Your task to perform on an android device: set default search engine in the chrome app Image 0: 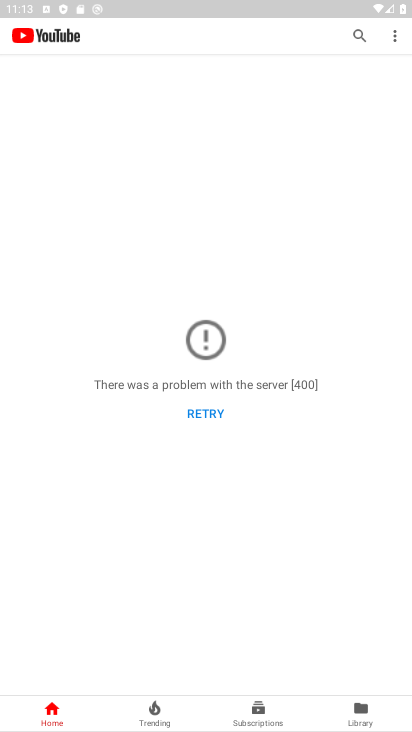
Step 0: press home button
Your task to perform on an android device: set default search engine in the chrome app Image 1: 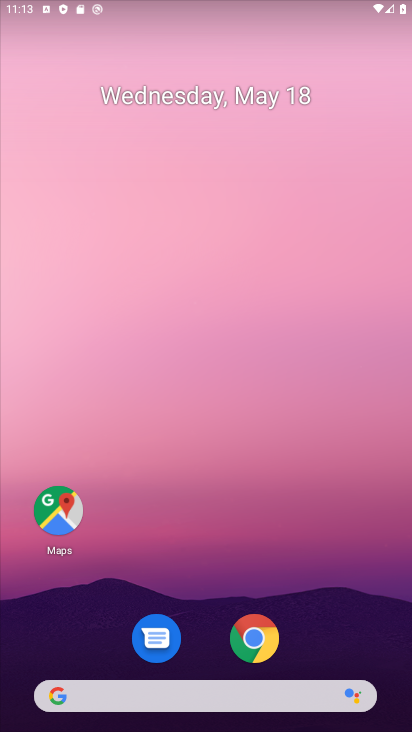
Step 1: drag from (373, 626) to (299, 104)
Your task to perform on an android device: set default search engine in the chrome app Image 2: 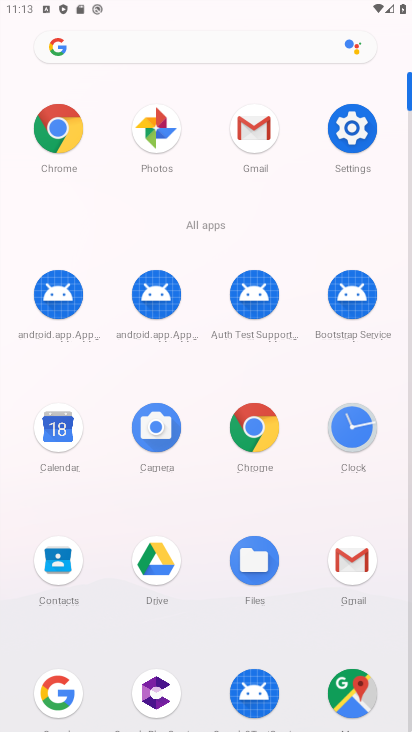
Step 2: click (71, 124)
Your task to perform on an android device: set default search engine in the chrome app Image 3: 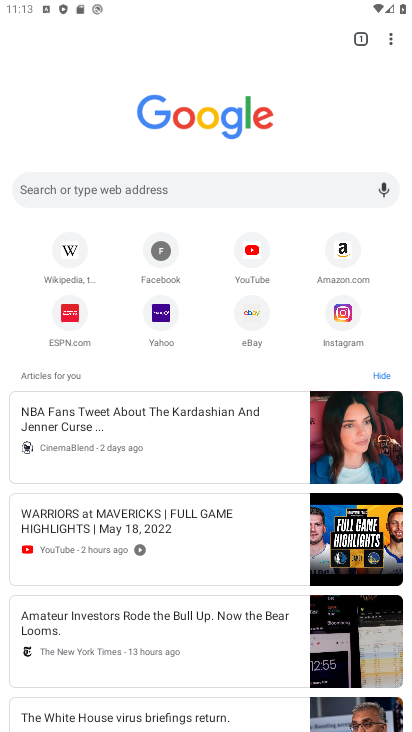
Step 3: click (394, 43)
Your task to perform on an android device: set default search engine in the chrome app Image 4: 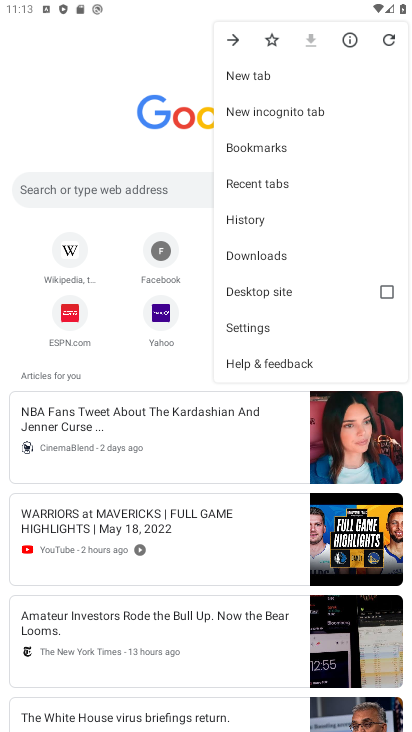
Step 4: click (278, 335)
Your task to perform on an android device: set default search engine in the chrome app Image 5: 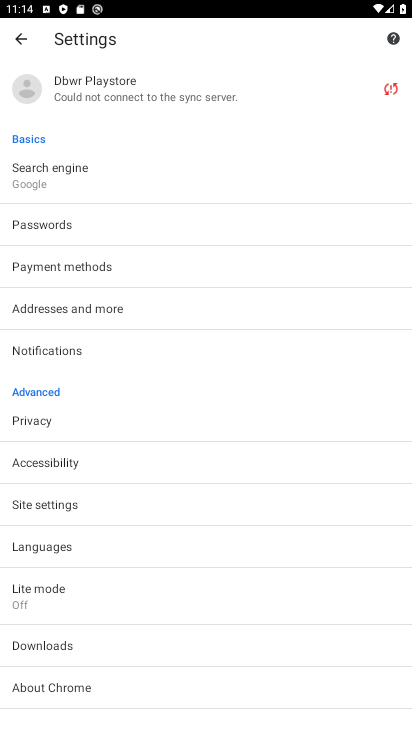
Step 5: click (121, 178)
Your task to perform on an android device: set default search engine in the chrome app Image 6: 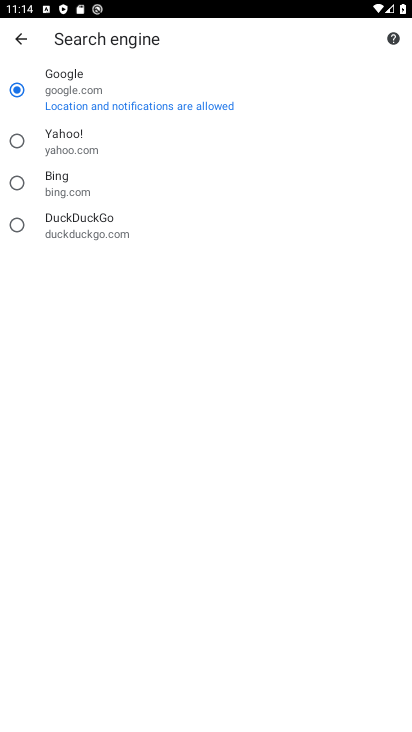
Step 6: click (121, 187)
Your task to perform on an android device: set default search engine in the chrome app Image 7: 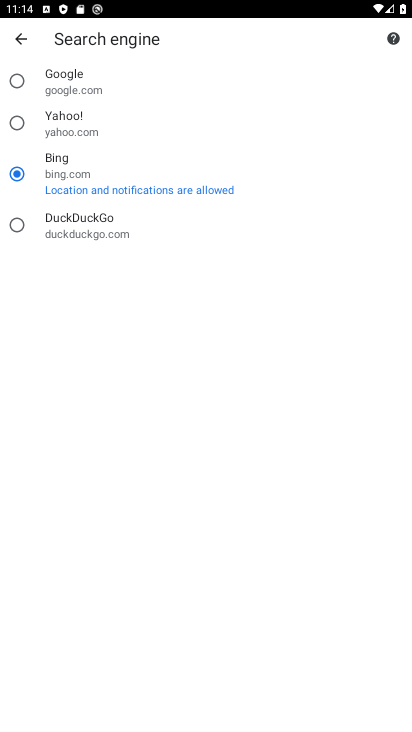
Step 7: task complete